Your task to perform on an android device: turn on the 24-hour format for clock Image 0: 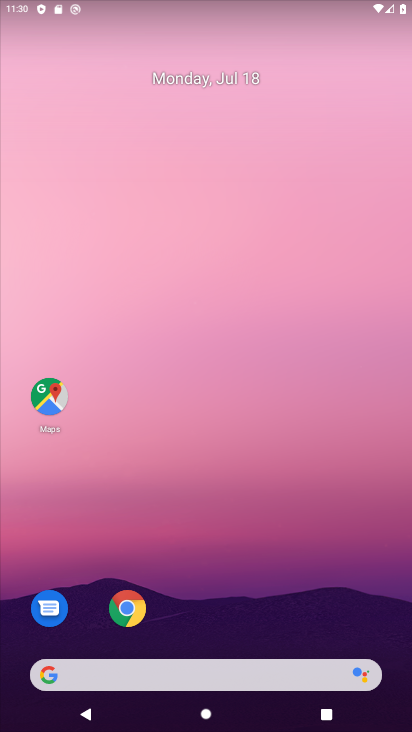
Step 0: drag from (232, 676) to (231, 76)
Your task to perform on an android device: turn on the 24-hour format for clock Image 1: 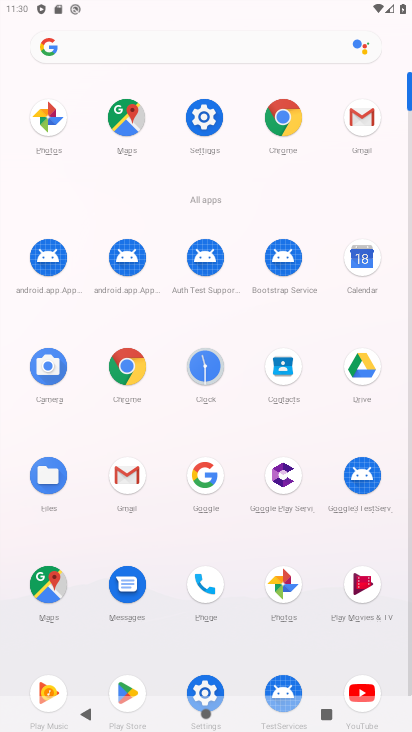
Step 1: click (205, 367)
Your task to perform on an android device: turn on the 24-hour format for clock Image 2: 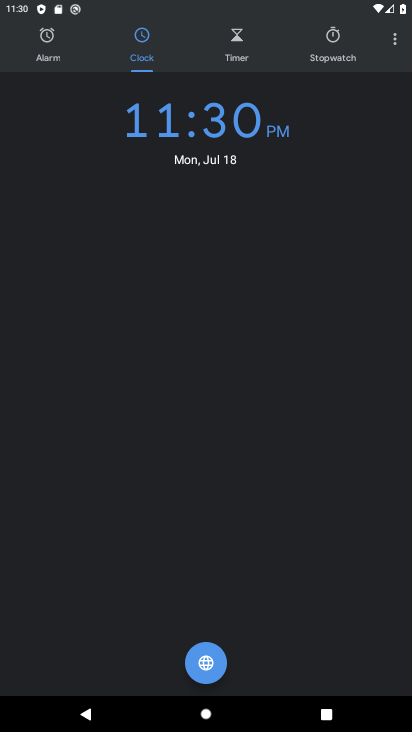
Step 2: click (395, 40)
Your task to perform on an android device: turn on the 24-hour format for clock Image 3: 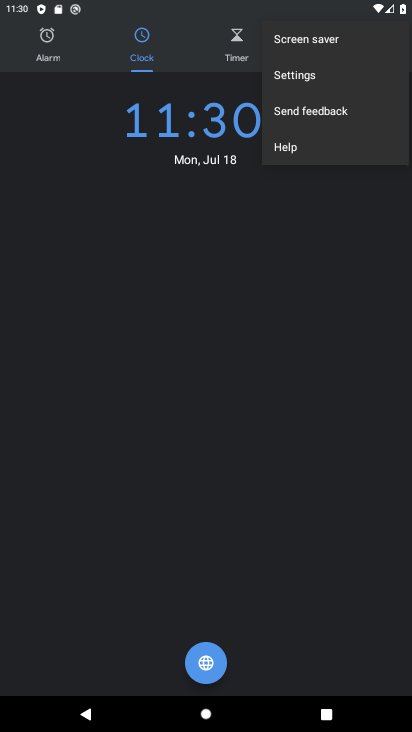
Step 3: click (299, 73)
Your task to perform on an android device: turn on the 24-hour format for clock Image 4: 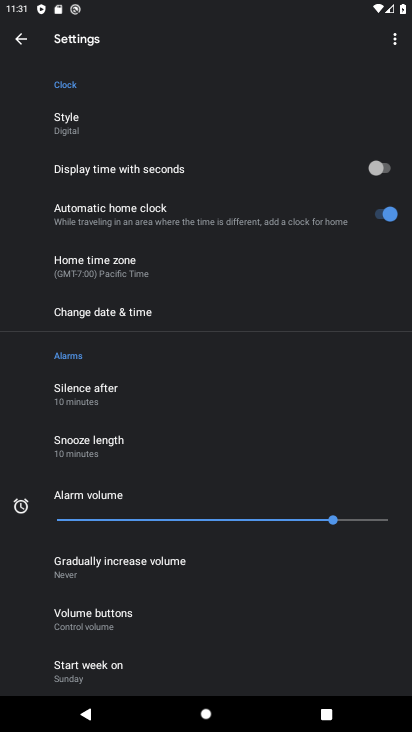
Step 4: click (107, 317)
Your task to perform on an android device: turn on the 24-hour format for clock Image 5: 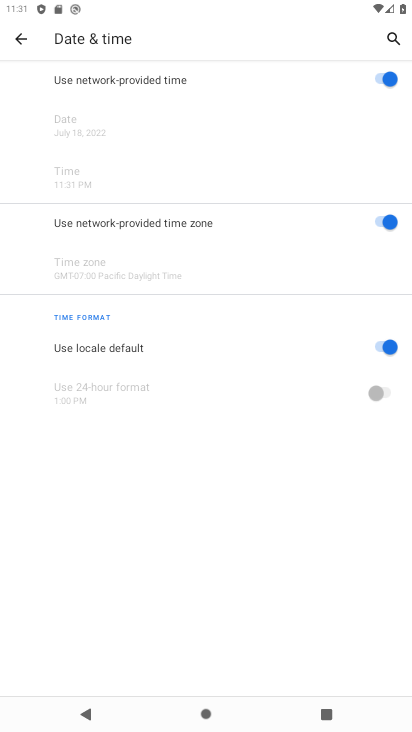
Step 5: click (386, 345)
Your task to perform on an android device: turn on the 24-hour format for clock Image 6: 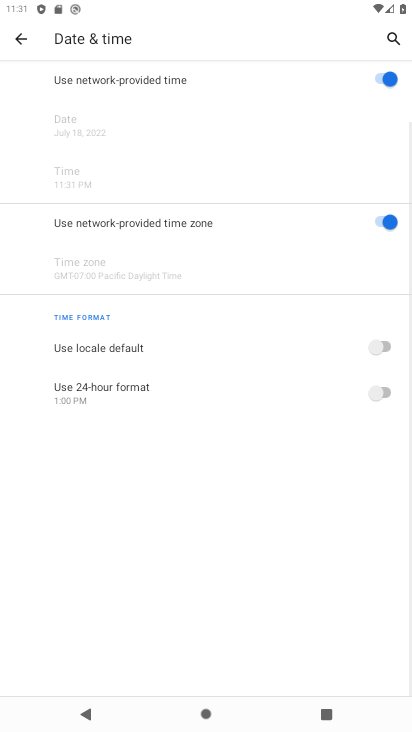
Step 6: click (386, 395)
Your task to perform on an android device: turn on the 24-hour format for clock Image 7: 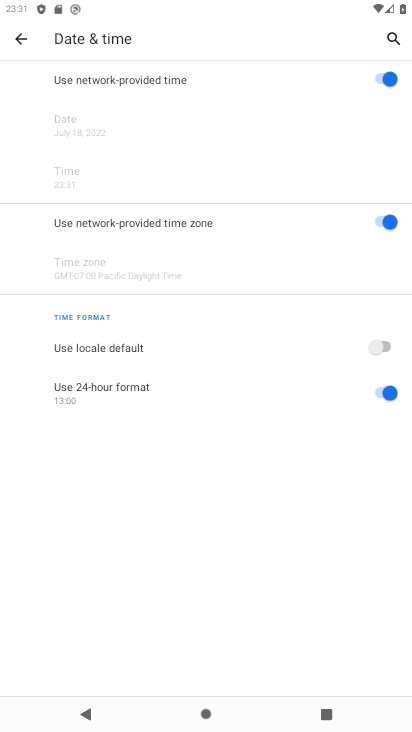
Step 7: task complete